Your task to perform on an android device: Open the calendar app, open the side menu, and click the "Day" option Image 0: 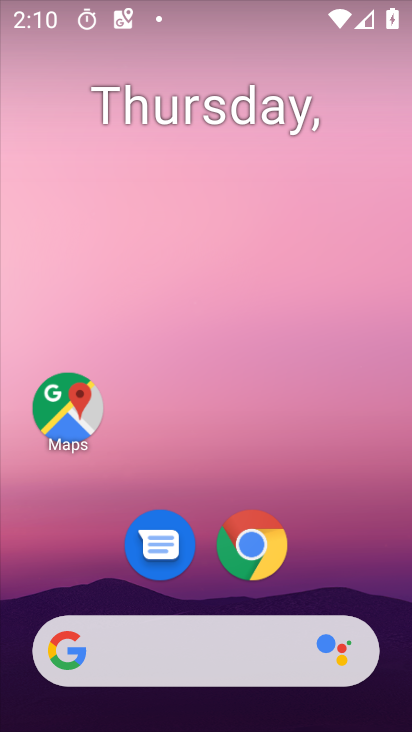
Step 0: drag from (231, 609) to (233, 210)
Your task to perform on an android device: Open the calendar app, open the side menu, and click the "Day" option Image 1: 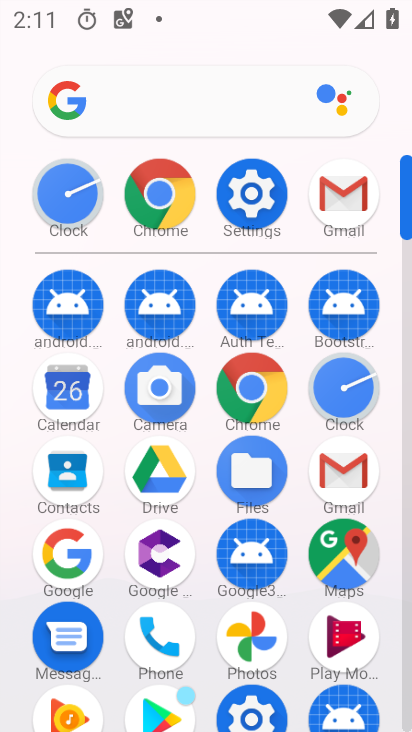
Step 1: click (75, 393)
Your task to perform on an android device: Open the calendar app, open the side menu, and click the "Day" option Image 2: 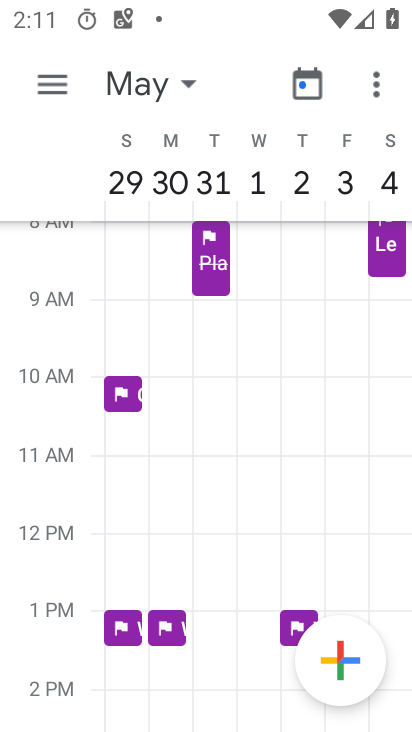
Step 2: click (48, 81)
Your task to perform on an android device: Open the calendar app, open the side menu, and click the "Day" option Image 3: 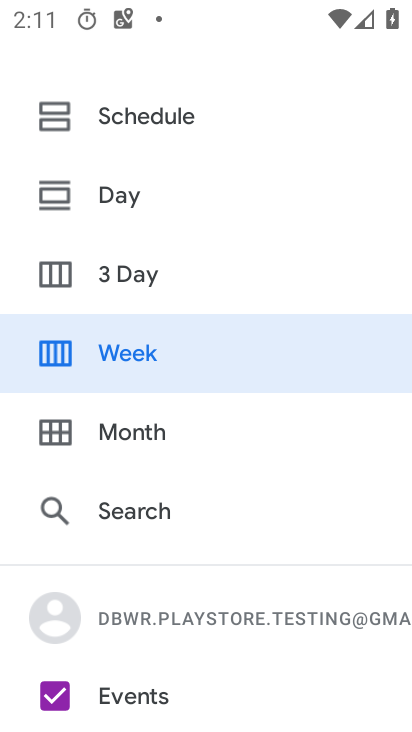
Step 3: click (123, 184)
Your task to perform on an android device: Open the calendar app, open the side menu, and click the "Day" option Image 4: 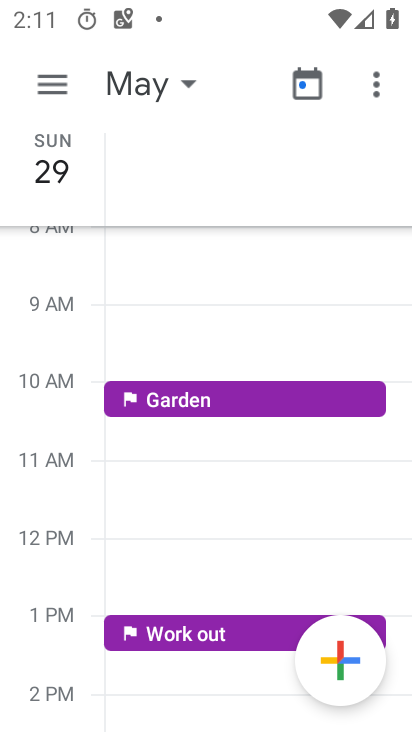
Step 4: task complete